Your task to perform on an android device: refresh tabs in the chrome app Image 0: 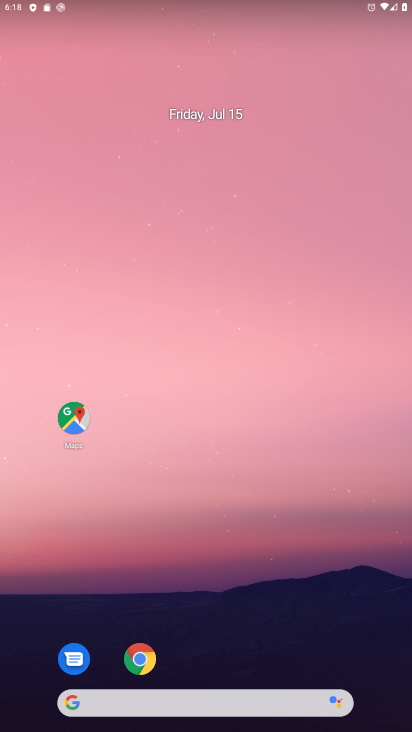
Step 0: click (140, 660)
Your task to perform on an android device: refresh tabs in the chrome app Image 1: 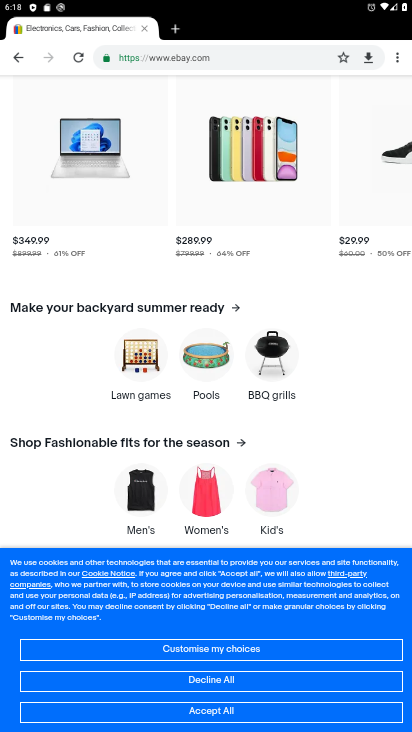
Step 1: click (78, 54)
Your task to perform on an android device: refresh tabs in the chrome app Image 2: 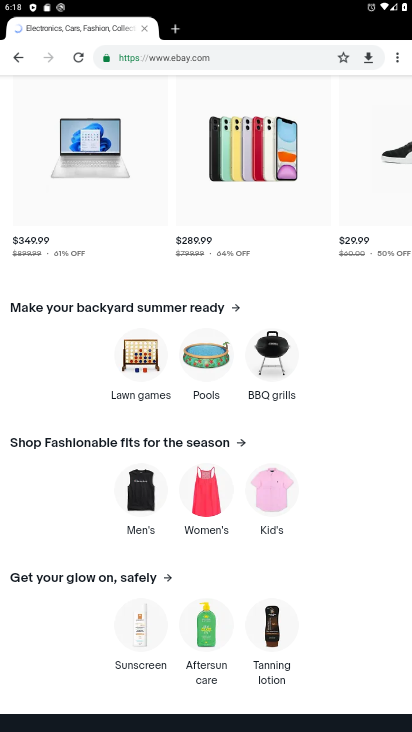
Step 2: task complete